Your task to perform on an android device: Open Chrome and go to the settings page Image 0: 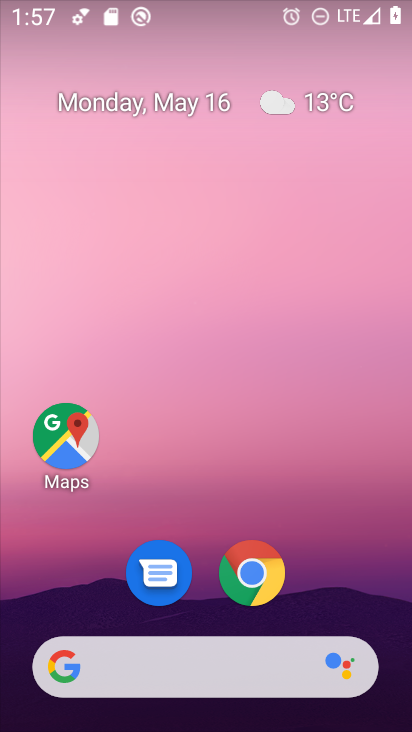
Step 0: click (266, 580)
Your task to perform on an android device: Open Chrome and go to the settings page Image 1: 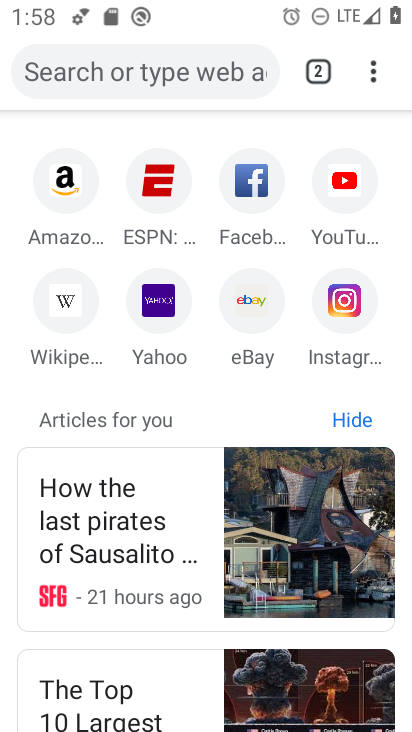
Step 1: task complete